Your task to perform on an android device: turn on notifications settings in the gmail app Image 0: 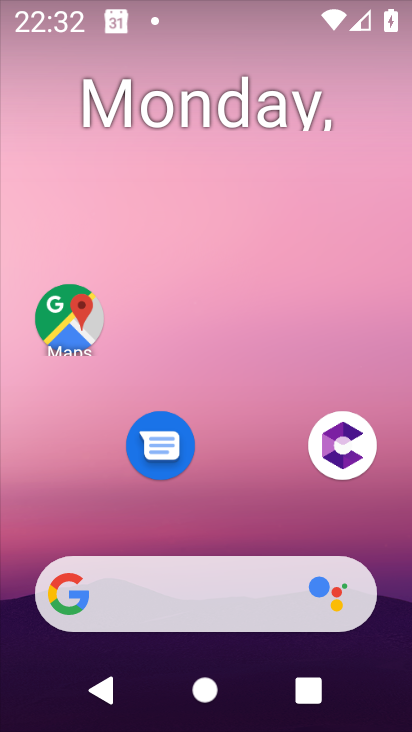
Step 0: press home button
Your task to perform on an android device: turn on notifications settings in the gmail app Image 1: 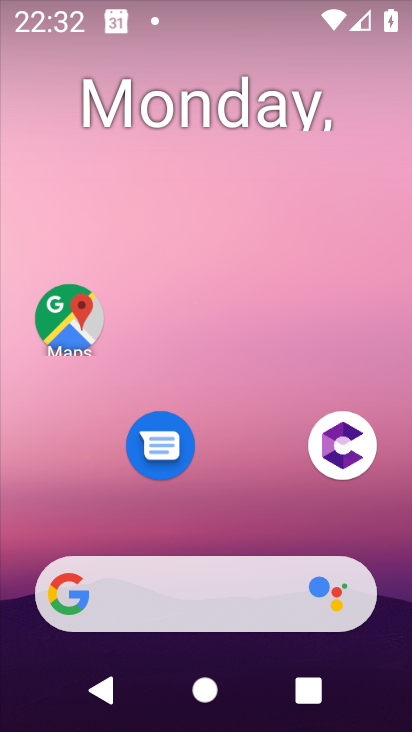
Step 1: drag from (220, 474) to (227, 162)
Your task to perform on an android device: turn on notifications settings in the gmail app Image 2: 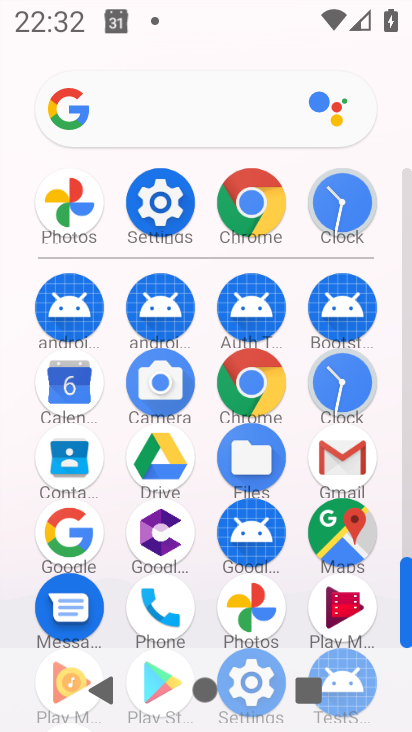
Step 2: click (345, 464)
Your task to perform on an android device: turn on notifications settings in the gmail app Image 3: 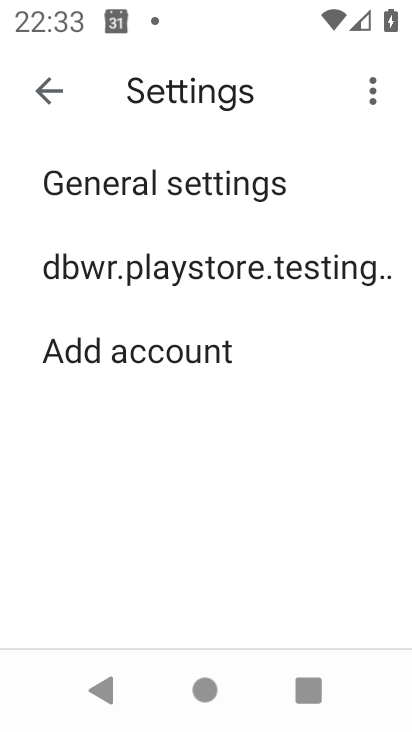
Step 3: click (169, 177)
Your task to perform on an android device: turn on notifications settings in the gmail app Image 4: 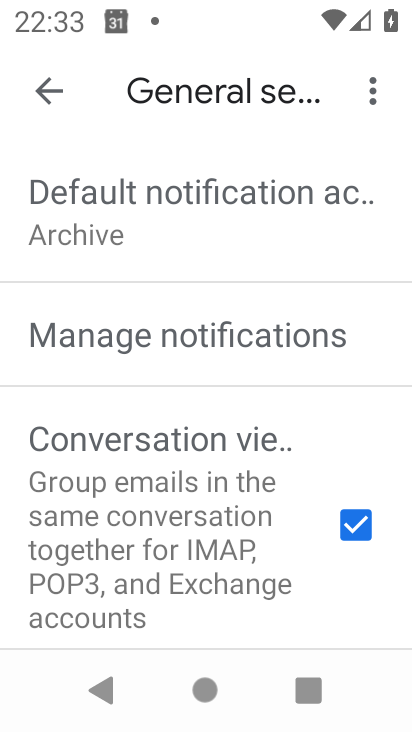
Step 4: click (207, 327)
Your task to perform on an android device: turn on notifications settings in the gmail app Image 5: 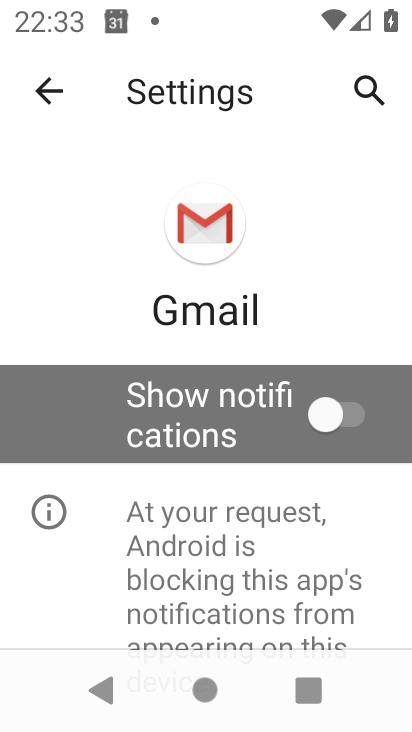
Step 5: drag from (318, 410) to (411, 432)
Your task to perform on an android device: turn on notifications settings in the gmail app Image 6: 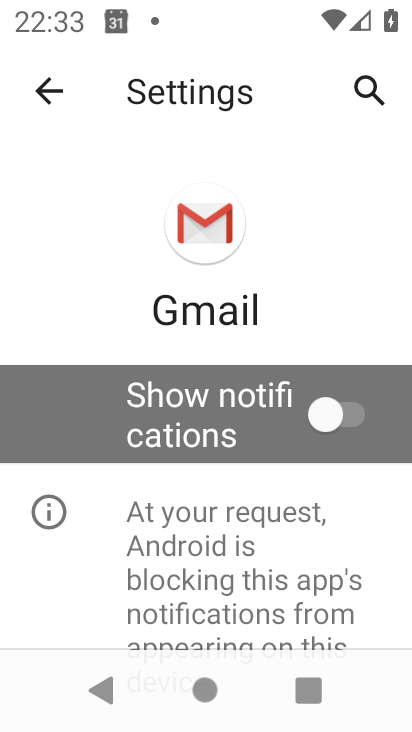
Step 6: click (336, 417)
Your task to perform on an android device: turn on notifications settings in the gmail app Image 7: 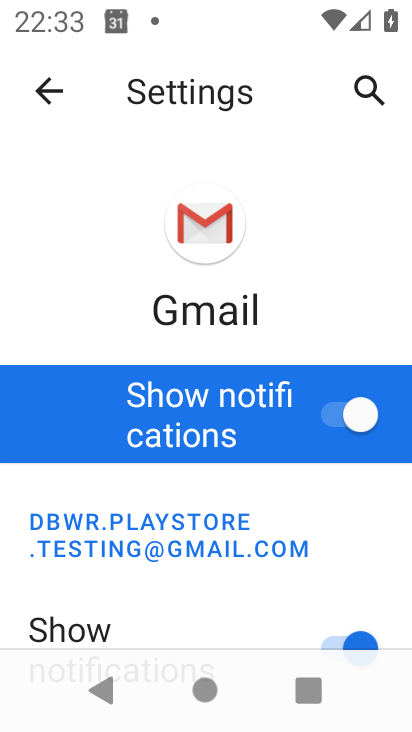
Step 7: task complete